Your task to perform on an android device: When is my next meeting? Image 0: 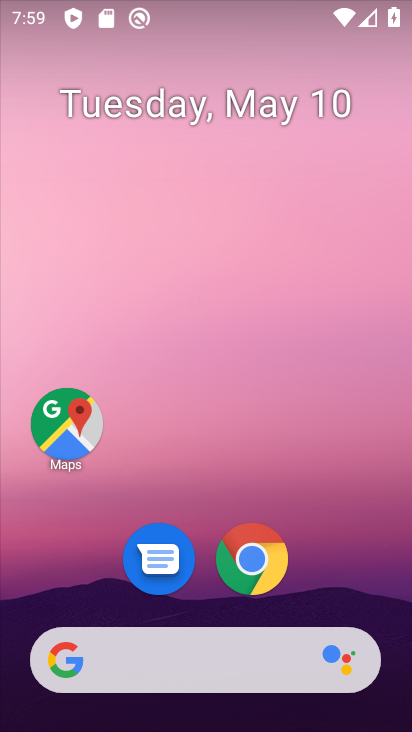
Step 0: drag from (201, 499) to (166, 63)
Your task to perform on an android device: When is my next meeting? Image 1: 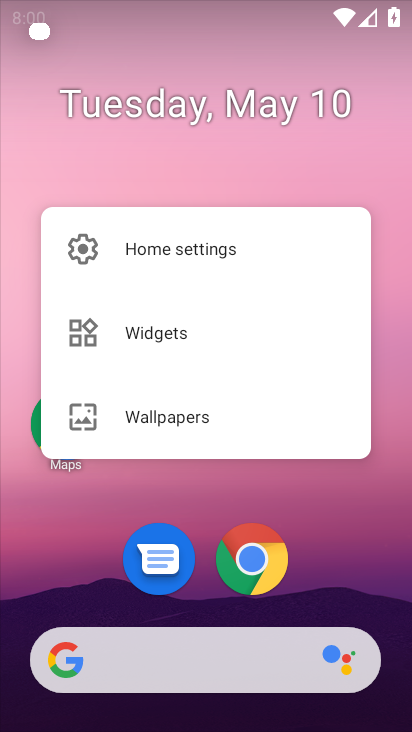
Step 1: drag from (342, 544) to (307, 0)
Your task to perform on an android device: When is my next meeting? Image 2: 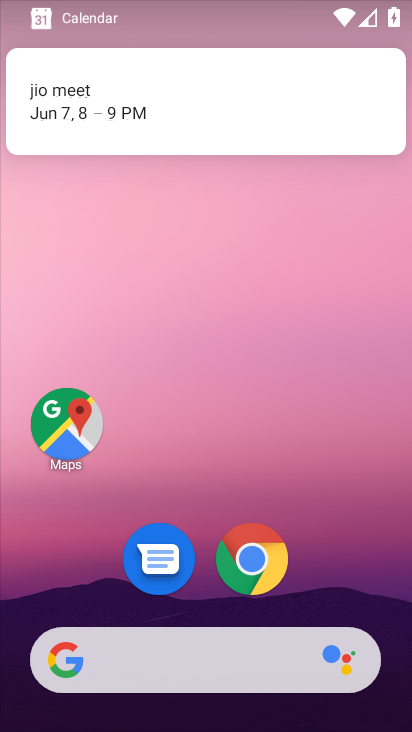
Step 2: drag from (365, 609) to (274, 93)
Your task to perform on an android device: When is my next meeting? Image 3: 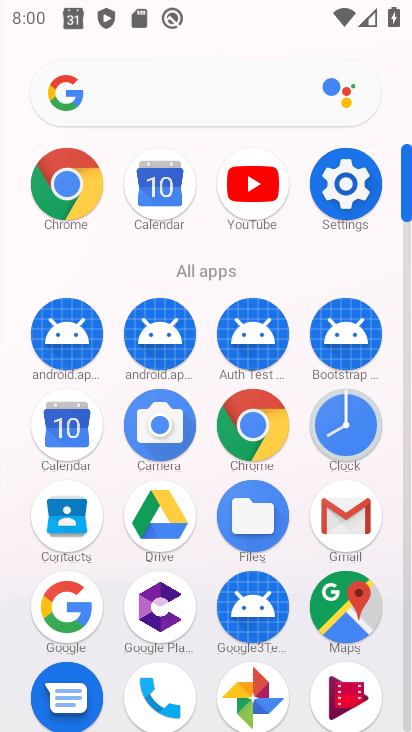
Step 3: click (159, 184)
Your task to perform on an android device: When is my next meeting? Image 4: 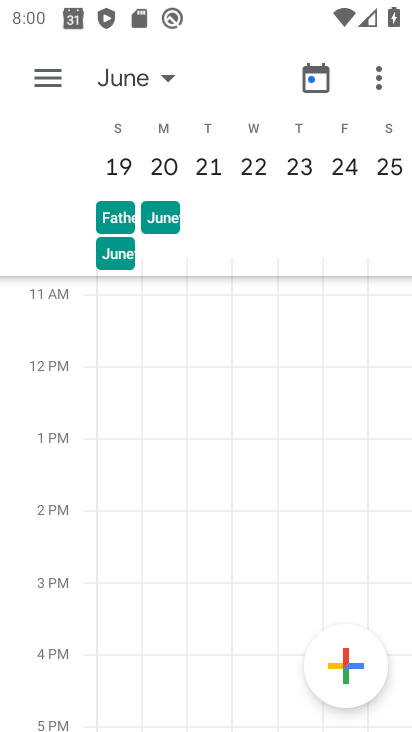
Step 4: click (127, 73)
Your task to perform on an android device: When is my next meeting? Image 5: 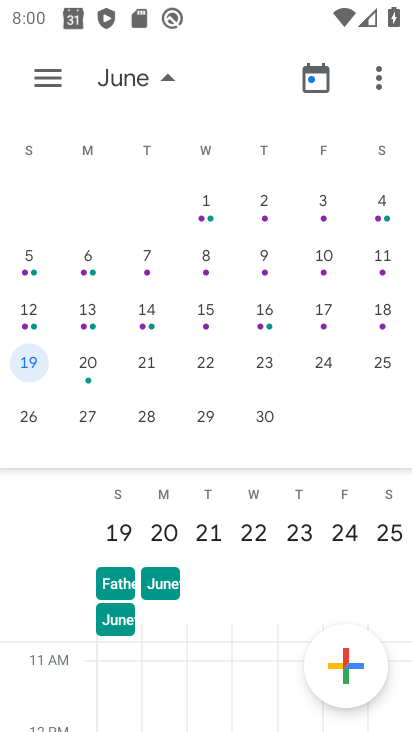
Step 5: drag from (59, 192) to (379, 276)
Your task to perform on an android device: When is my next meeting? Image 6: 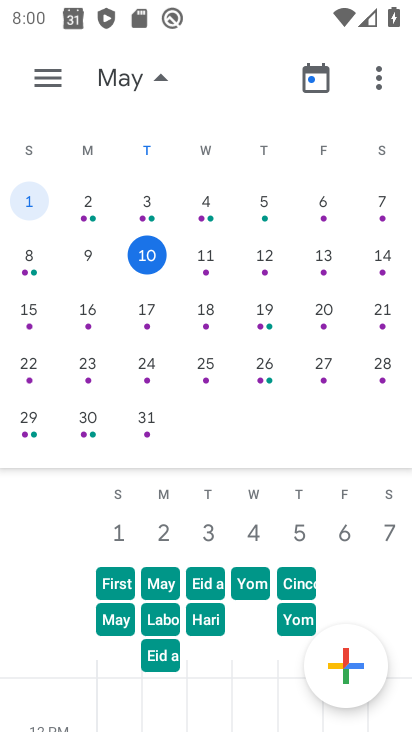
Step 6: click (136, 247)
Your task to perform on an android device: When is my next meeting? Image 7: 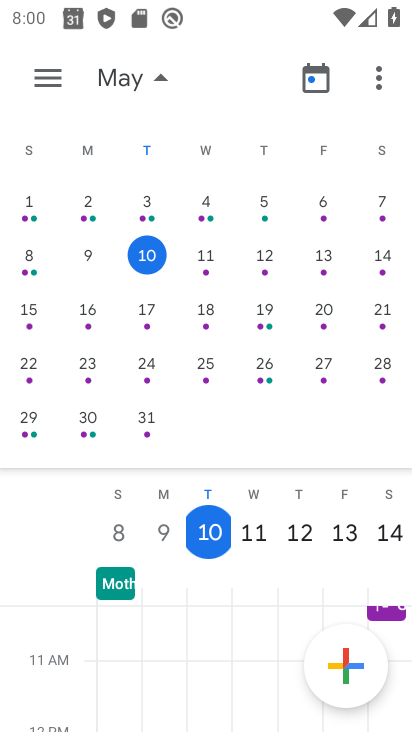
Step 7: click (44, 79)
Your task to perform on an android device: When is my next meeting? Image 8: 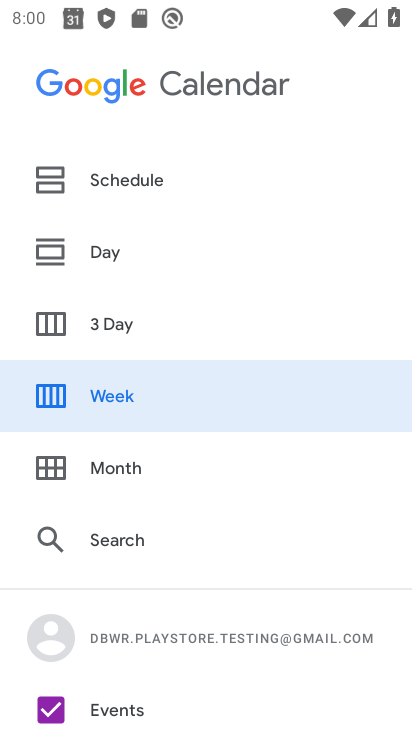
Step 8: click (114, 188)
Your task to perform on an android device: When is my next meeting? Image 9: 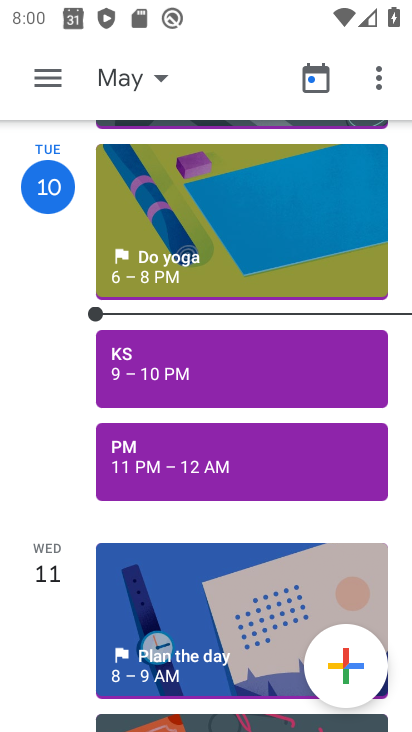
Step 9: click (160, 394)
Your task to perform on an android device: When is my next meeting? Image 10: 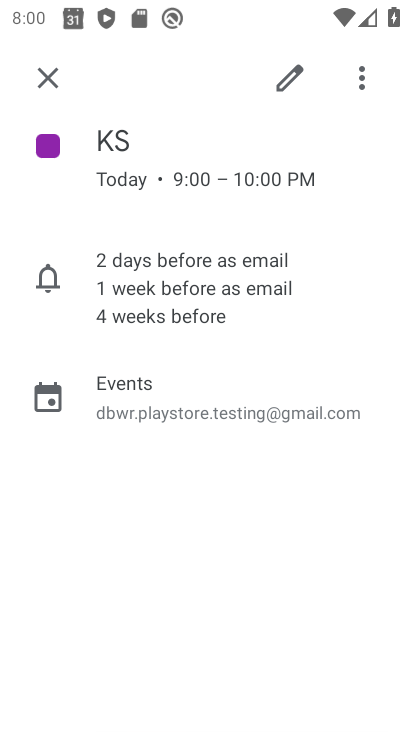
Step 10: task complete